Your task to perform on an android device: set the timer Image 0: 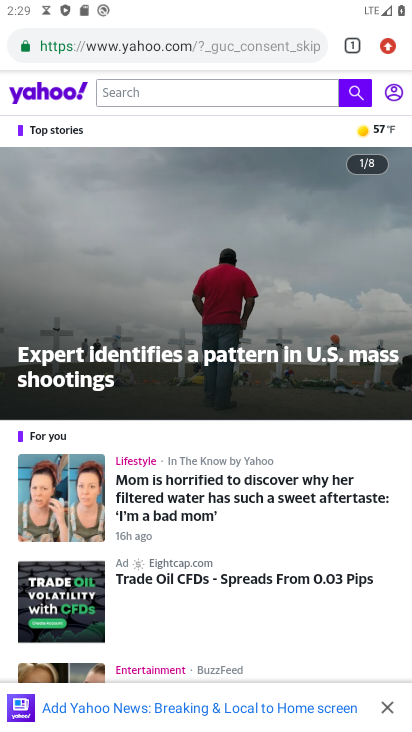
Step 0: press home button
Your task to perform on an android device: set the timer Image 1: 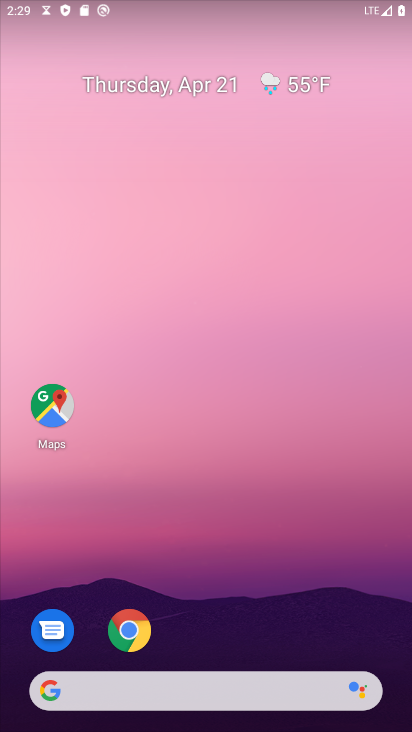
Step 1: drag from (305, 610) to (278, 15)
Your task to perform on an android device: set the timer Image 2: 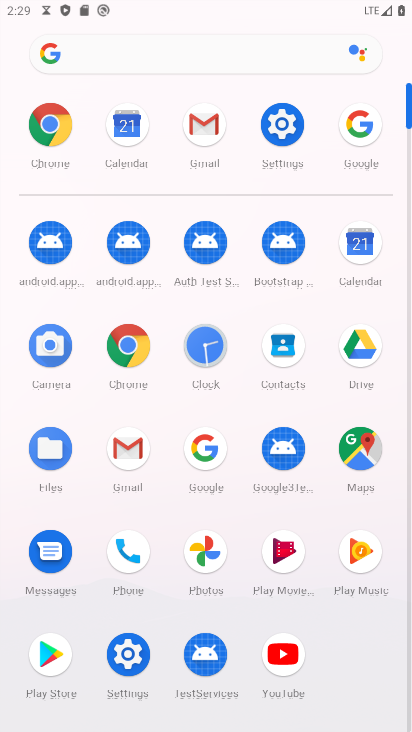
Step 2: click (204, 348)
Your task to perform on an android device: set the timer Image 3: 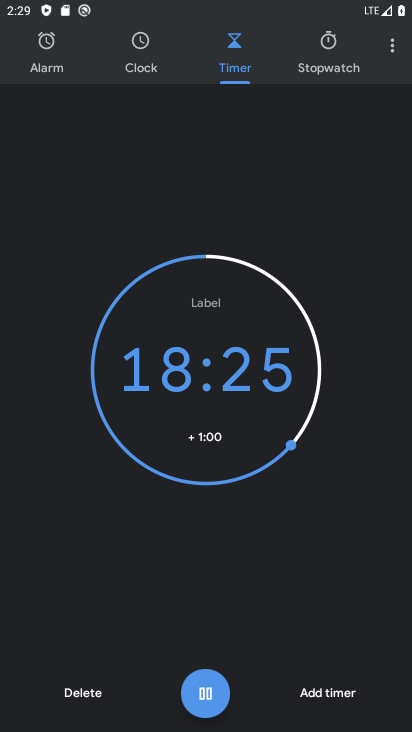
Step 3: click (317, 700)
Your task to perform on an android device: set the timer Image 4: 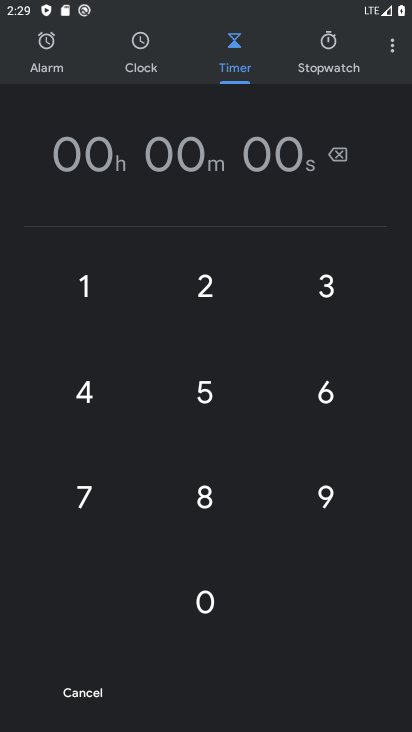
Step 4: click (205, 403)
Your task to perform on an android device: set the timer Image 5: 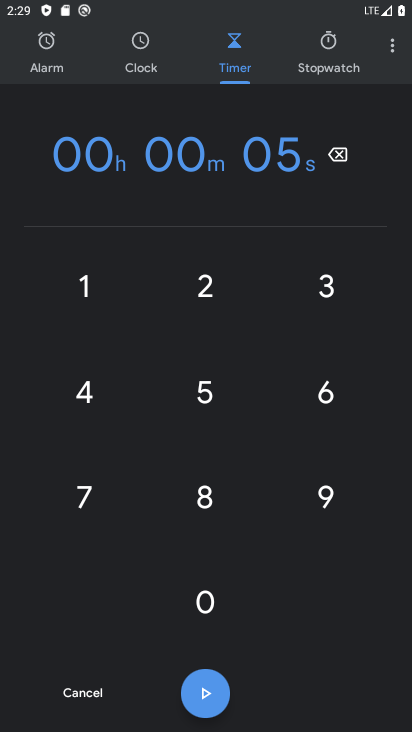
Step 5: click (201, 606)
Your task to perform on an android device: set the timer Image 6: 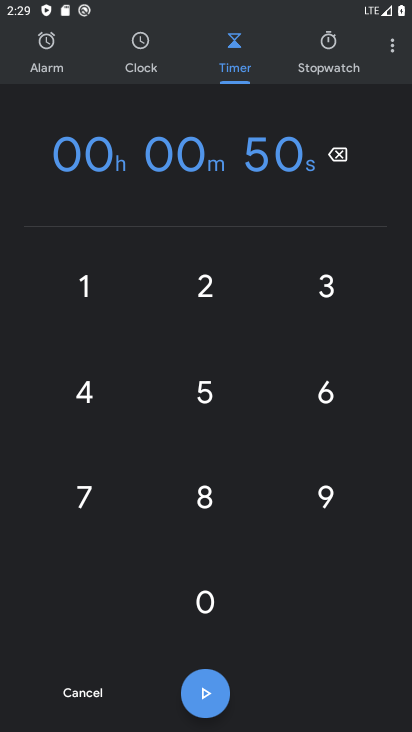
Step 6: click (208, 599)
Your task to perform on an android device: set the timer Image 7: 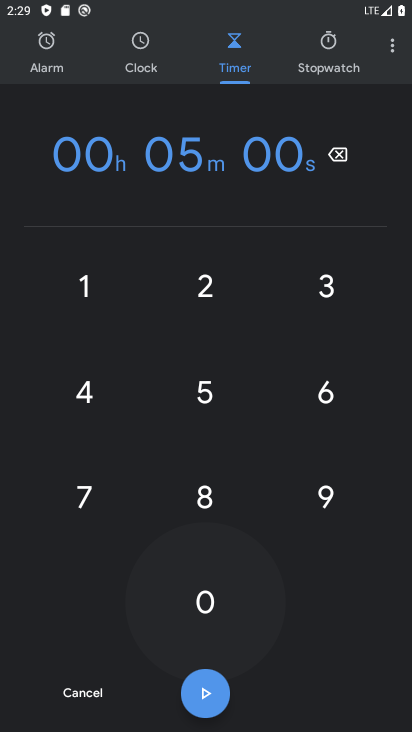
Step 7: click (210, 399)
Your task to perform on an android device: set the timer Image 8: 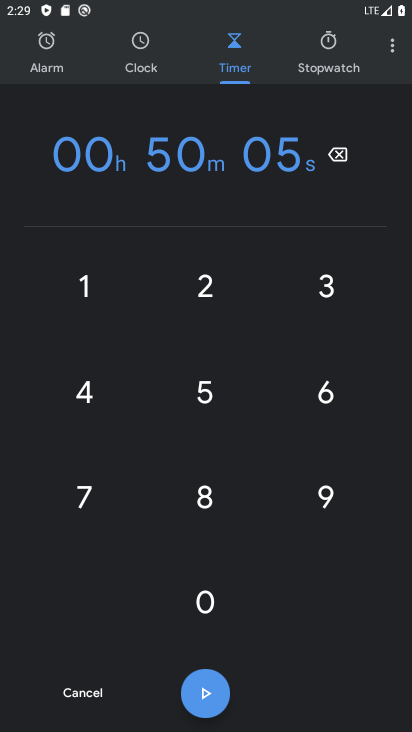
Step 8: click (208, 697)
Your task to perform on an android device: set the timer Image 9: 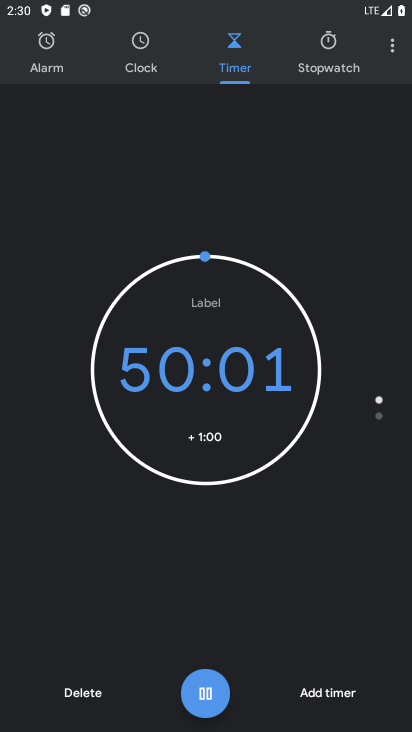
Step 9: task complete